Your task to perform on an android device: change the clock display to analog Image 0: 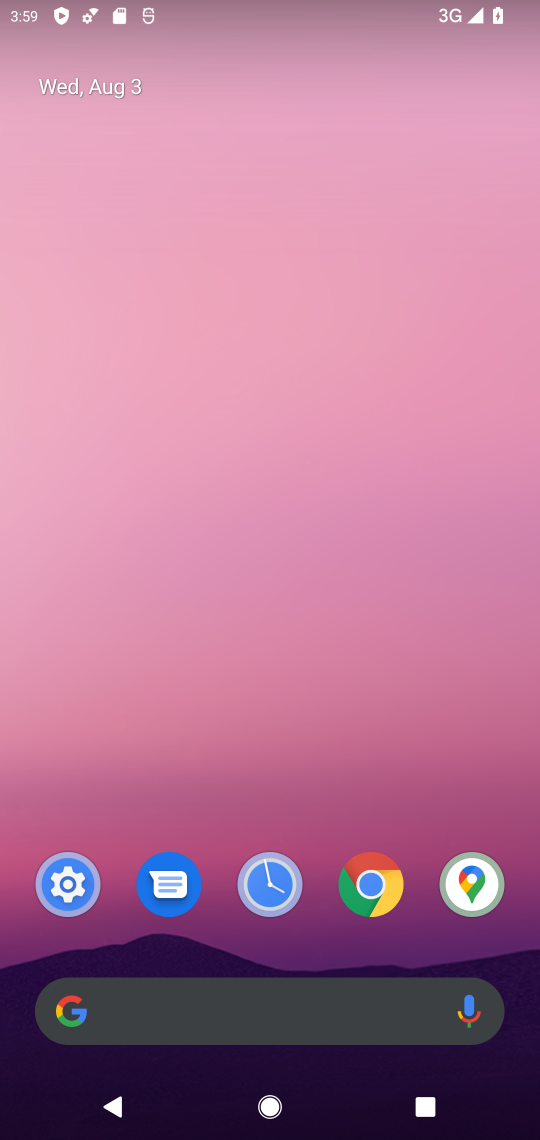
Step 0: click (269, 879)
Your task to perform on an android device: change the clock display to analog Image 1: 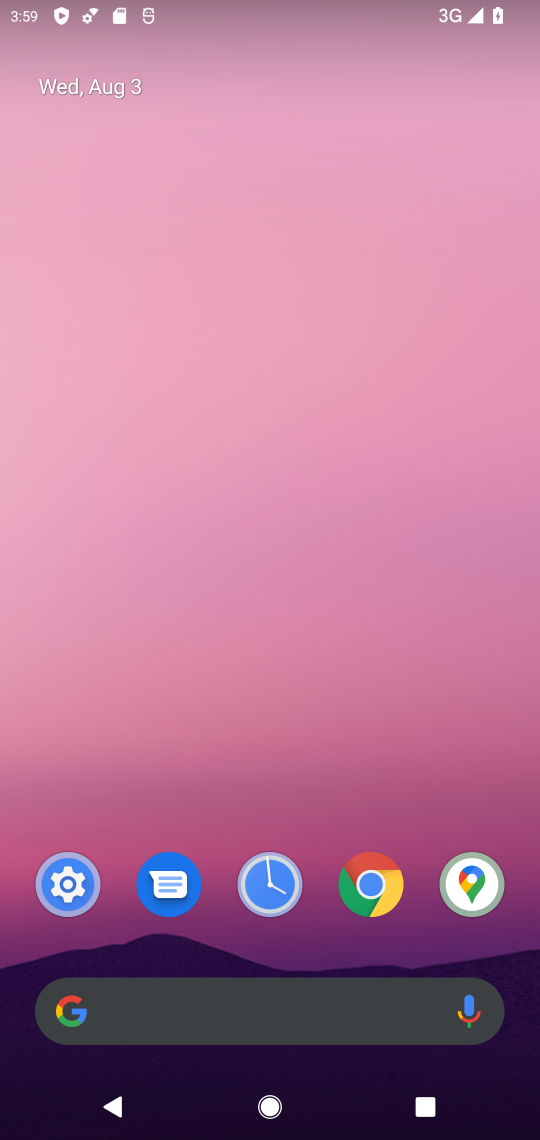
Step 1: task complete